Your task to perform on an android device: Open the map Image 0: 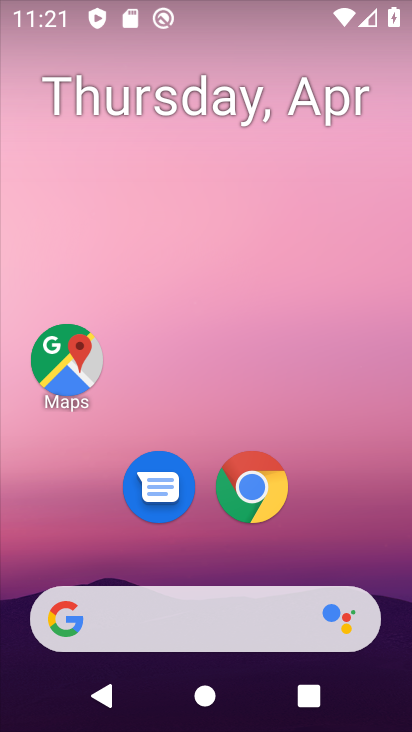
Step 0: drag from (333, 443) to (327, 134)
Your task to perform on an android device: Open the map Image 1: 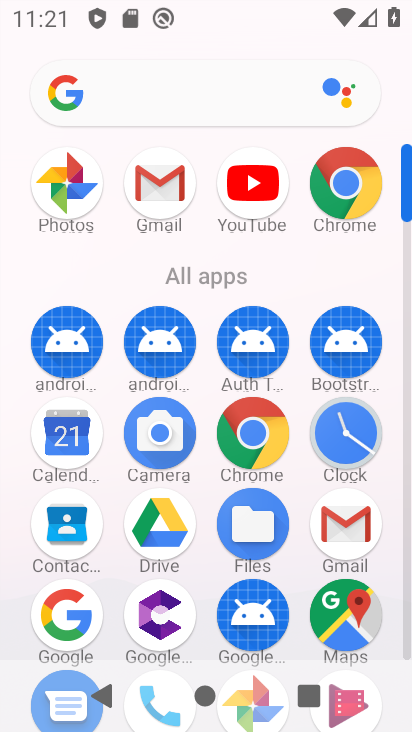
Step 1: click (342, 607)
Your task to perform on an android device: Open the map Image 2: 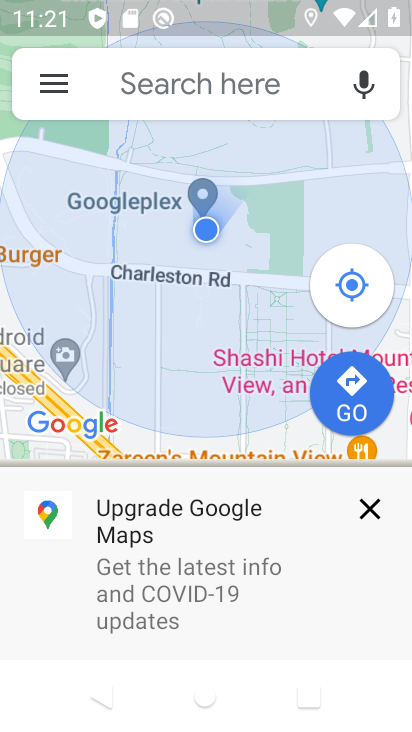
Step 2: click (356, 511)
Your task to perform on an android device: Open the map Image 3: 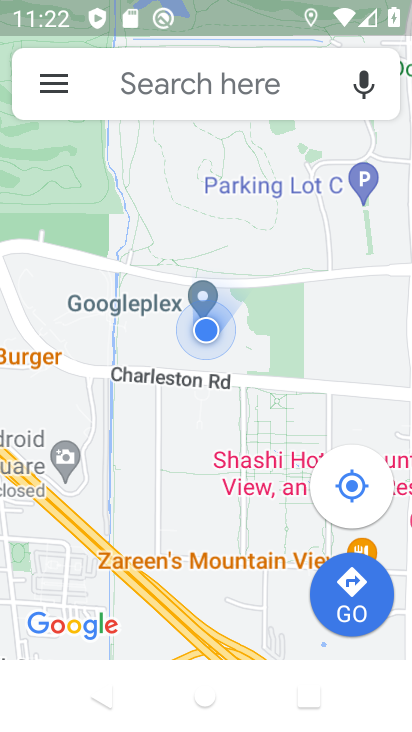
Step 3: task complete